Your task to perform on an android device: change the clock display to analog Image 0: 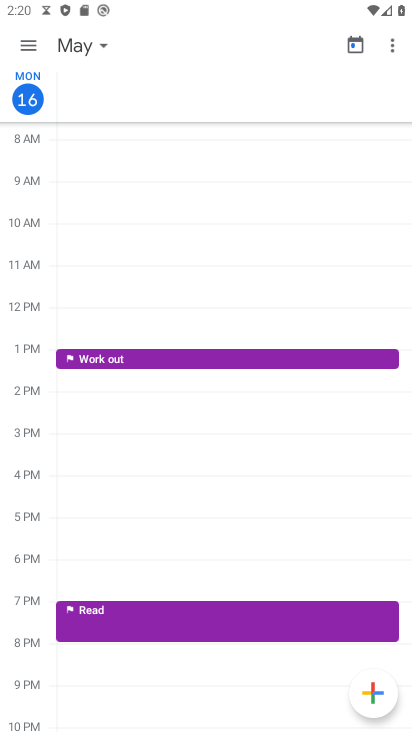
Step 0: press home button
Your task to perform on an android device: change the clock display to analog Image 1: 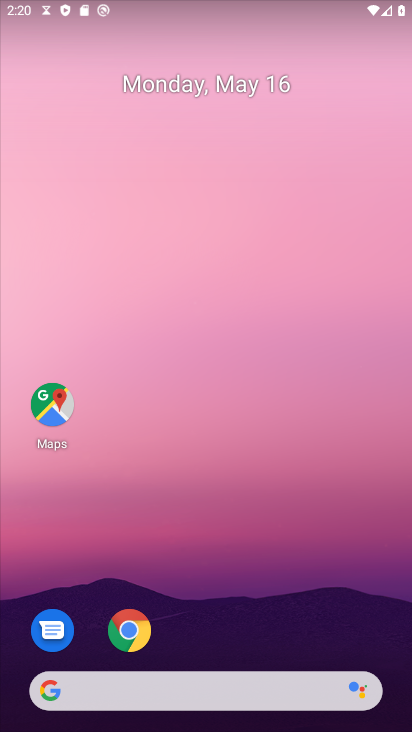
Step 1: drag from (218, 645) to (259, 109)
Your task to perform on an android device: change the clock display to analog Image 2: 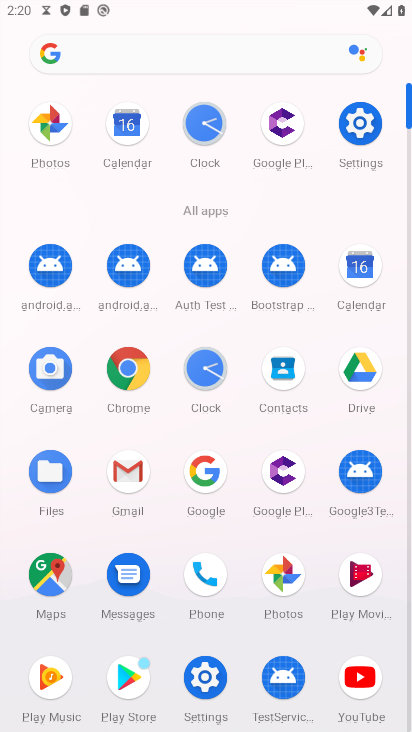
Step 2: click (204, 366)
Your task to perform on an android device: change the clock display to analog Image 3: 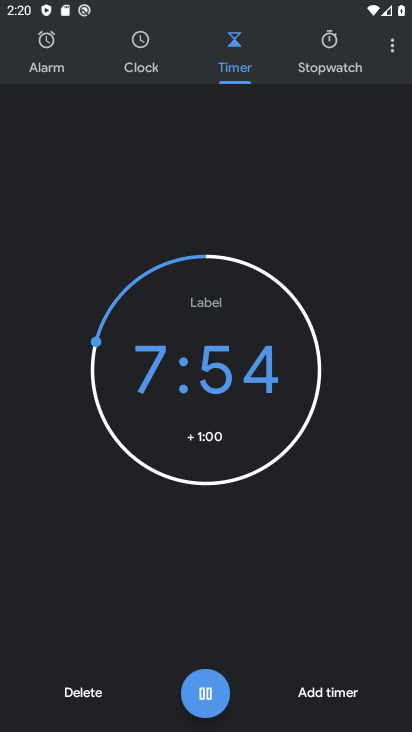
Step 3: click (386, 47)
Your task to perform on an android device: change the clock display to analog Image 4: 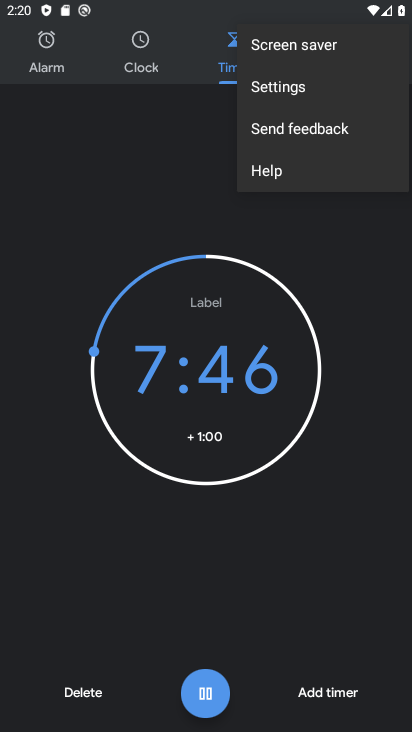
Step 4: click (322, 87)
Your task to perform on an android device: change the clock display to analog Image 5: 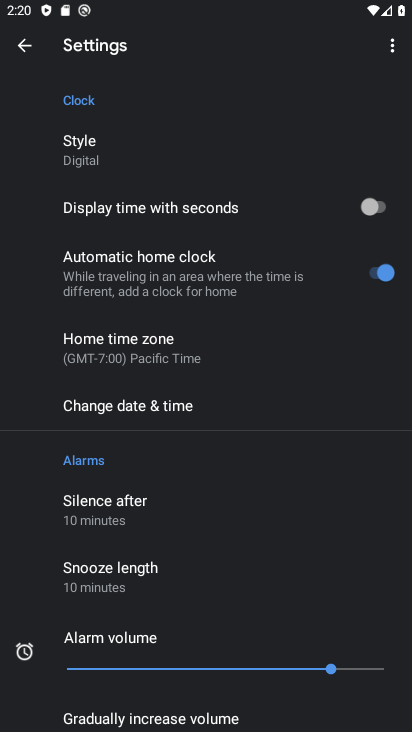
Step 5: click (92, 152)
Your task to perform on an android device: change the clock display to analog Image 6: 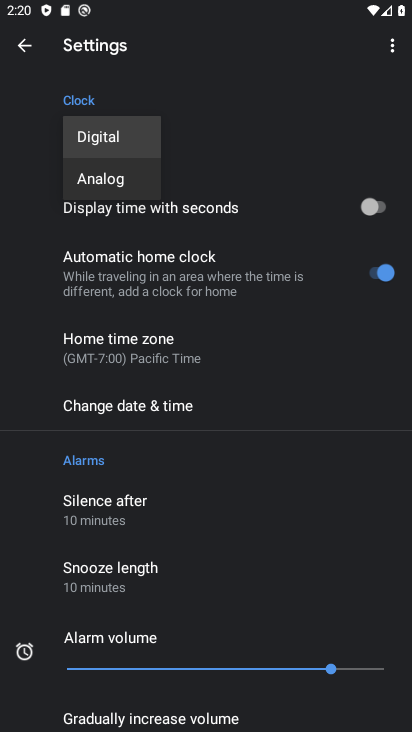
Step 6: click (111, 177)
Your task to perform on an android device: change the clock display to analog Image 7: 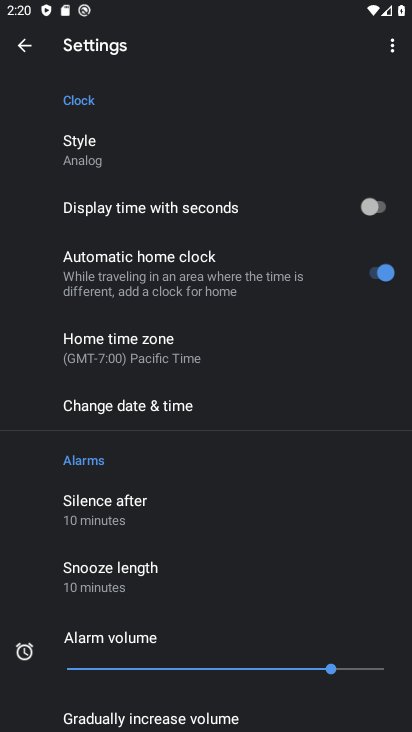
Step 7: task complete